Your task to perform on an android device: Open Maps and search for coffee Image 0: 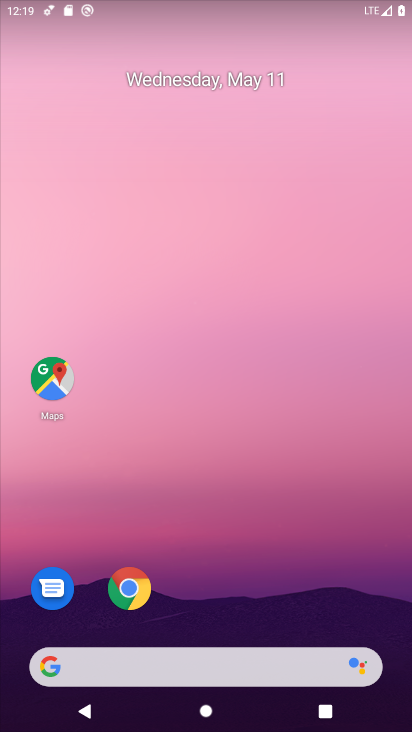
Step 0: click (53, 365)
Your task to perform on an android device: Open Maps and search for coffee Image 1: 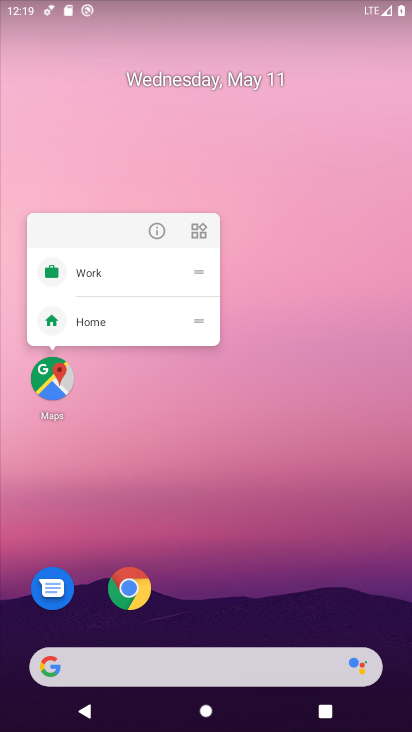
Step 1: click (51, 385)
Your task to perform on an android device: Open Maps and search for coffee Image 2: 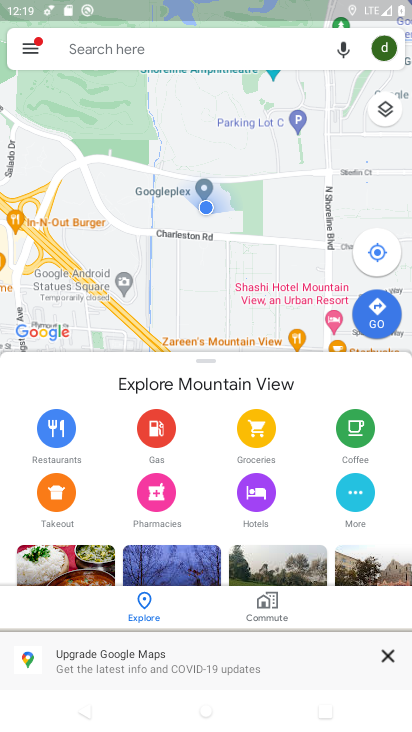
Step 2: press home button
Your task to perform on an android device: Open Maps and search for coffee Image 3: 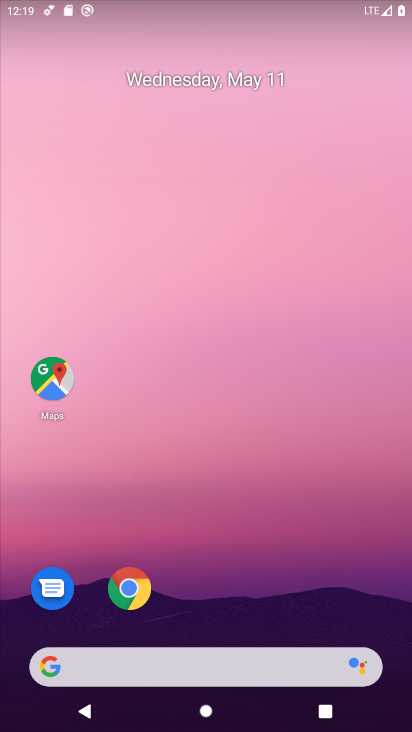
Step 3: click (47, 373)
Your task to perform on an android device: Open Maps and search for coffee Image 4: 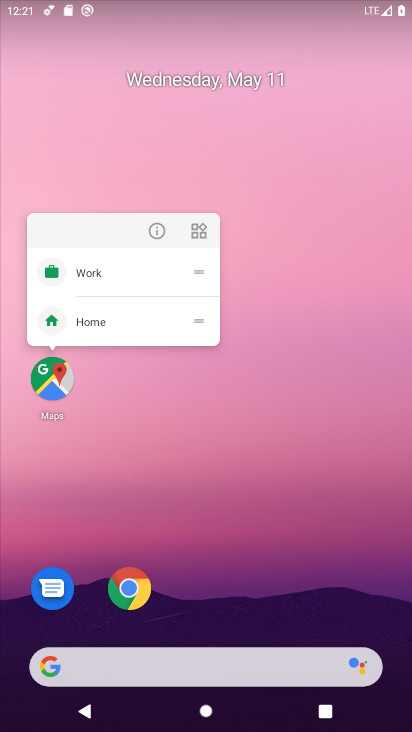
Step 4: click (34, 391)
Your task to perform on an android device: Open Maps and search for coffee Image 5: 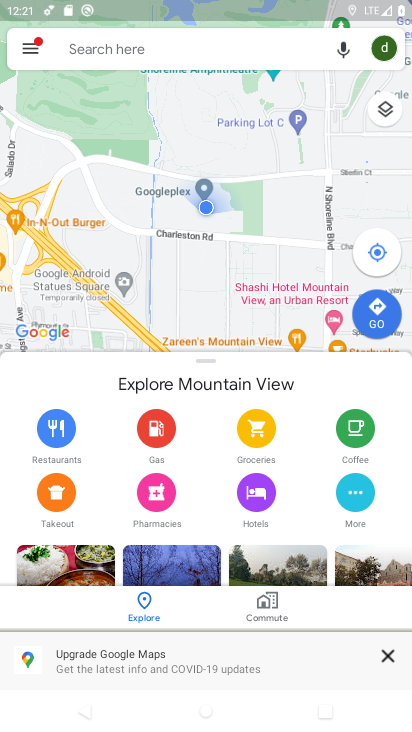
Step 5: click (50, 385)
Your task to perform on an android device: Open Maps and search for coffee Image 6: 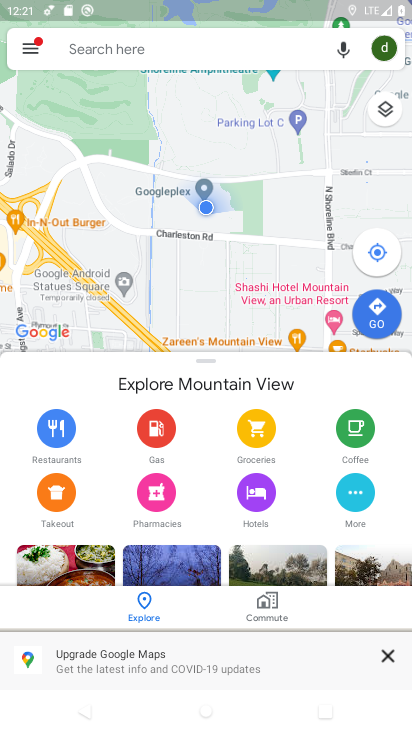
Step 6: click (72, 49)
Your task to perform on an android device: Open Maps and search for coffee Image 7: 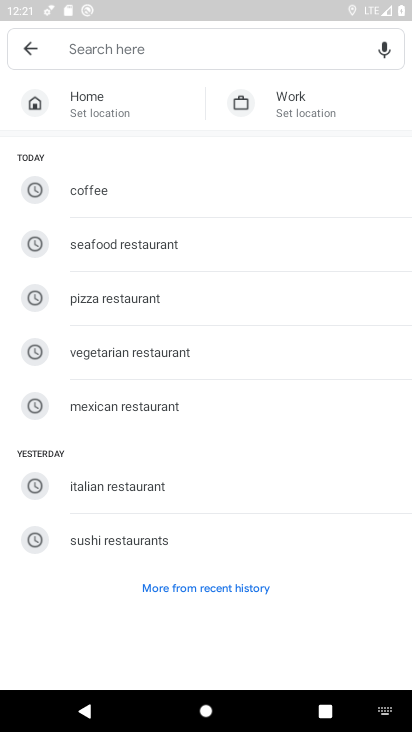
Step 7: click (111, 184)
Your task to perform on an android device: Open Maps and search for coffee Image 8: 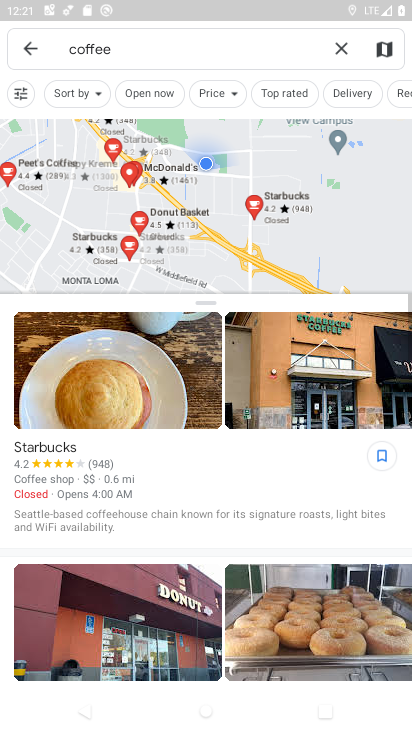
Step 8: task complete